Your task to perform on an android device: open app "Messages" Image 0: 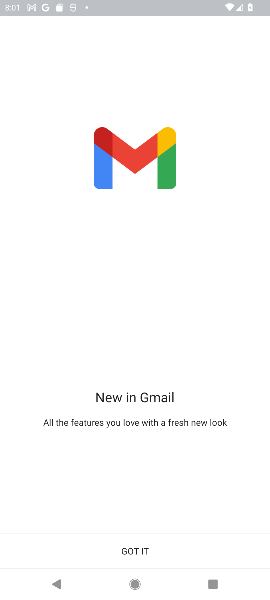
Step 0: drag from (171, 547) to (136, 156)
Your task to perform on an android device: open app "Messages" Image 1: 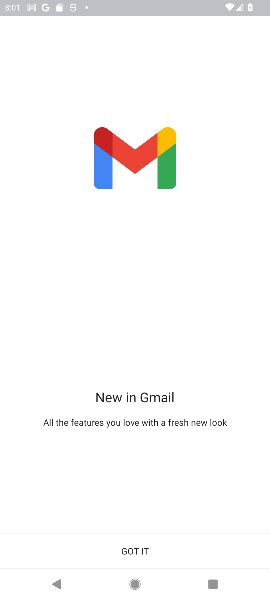
Step 1: drag from (158, 104) to (182, 2)
Your task to perform on an android device: open app "Messages" Image 2: 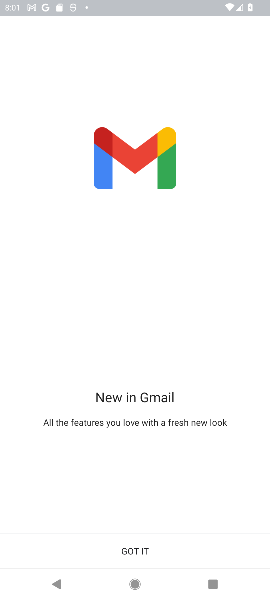
Step 2: drag from (130, 321) to (140, 38)
Your task to perform on an android device: open app "Messages" Image 3: 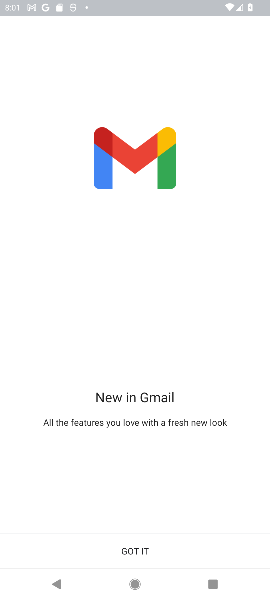
Step 3: drag from (158, 420) to (137, 80)
Your task to perform on an android device: open app "Messages" Image 4: 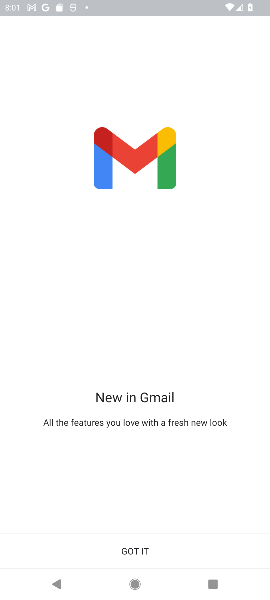
Step 4: drag from (161, 291) to (161, 29)
Your task to perform on an android device: open app "Messages" Image 5: 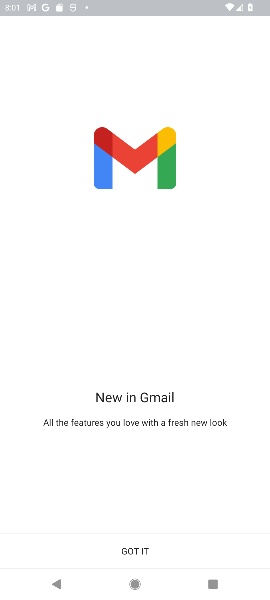
Step 5: drag from (209, 325) to (203, 21)
Your task to perform on an android device: open app "Messages" Image 6: 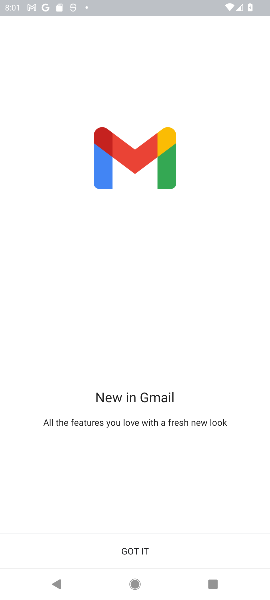
Step 6: press back button
Your task to perform on an android device: open app "Messages" Image 7: 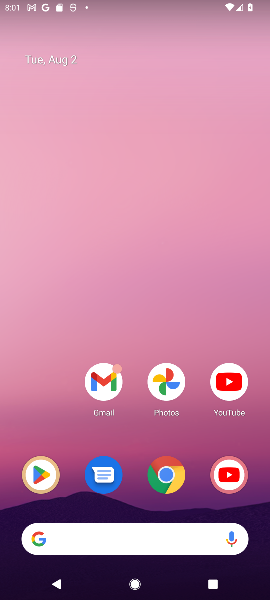
Step 7: drag from (115, 417) to (113, 129)
Your task to perform on an android device: open app "Messages" Image 8: 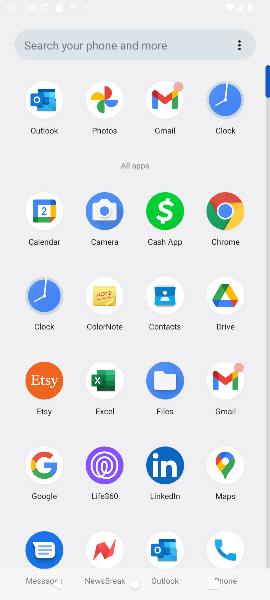
Step 8: click (121, 280)
Your task to perform on an android device: open app "Messages" Image 9: 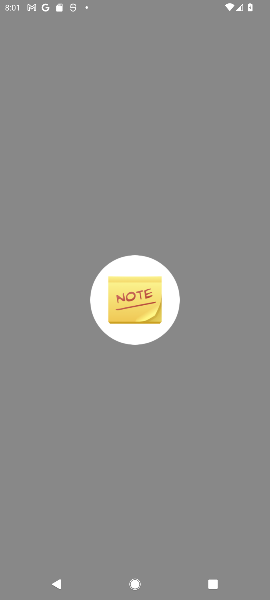
Step 9: drag from (133, 319) to (121, 181)
Your task to perform on an android device: open app "Messages" Image 10: 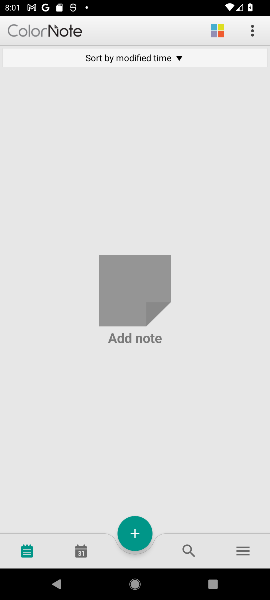
Step 10: drag from (127, 205) to (226, 409)
Your task to perform on an android device: open app "Messages" Image 11: 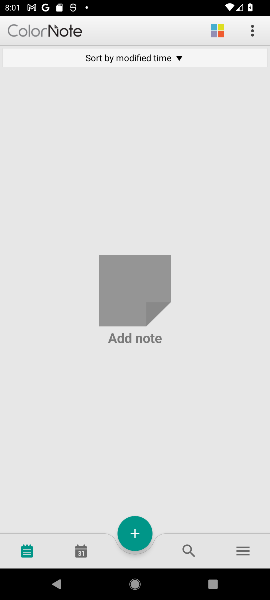
Step 11: press back button
Your task to perform on an android device: open app "Messages" Image 12: 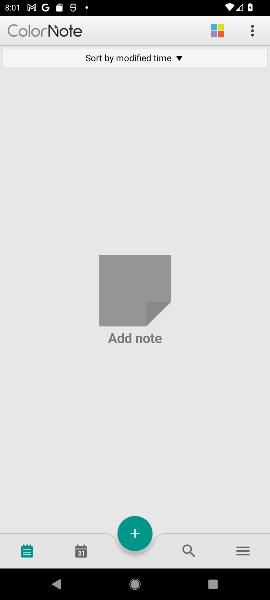
Step 12: press back button
Your task to perform on an android device: open app "Messages" Image 13: 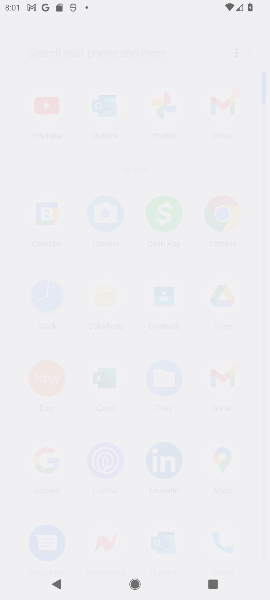
Step 13: press back button
Your task to perform on an android device: open app "Messages" Image 14: 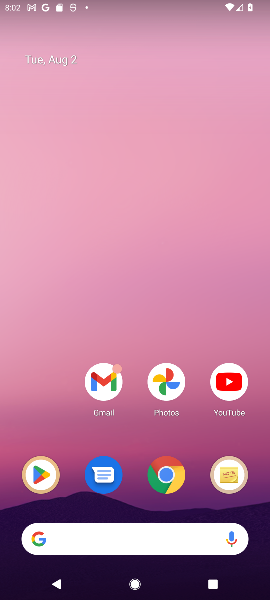
Step 14: drag from (176, 464) to (113, 223)
Your task to perform on an android device: open app "Messages" Image 15: 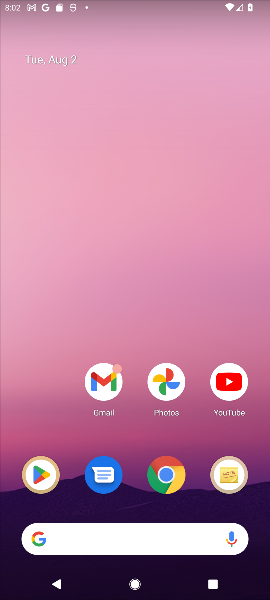
Step 15: click (114, 237)
Your task to perform on an android device: open app "Messages" Image 16: 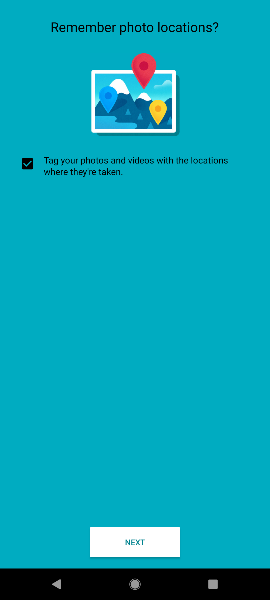
Step 16: press back button
Your task to perform on an android device: open app "Messages" Image 17: 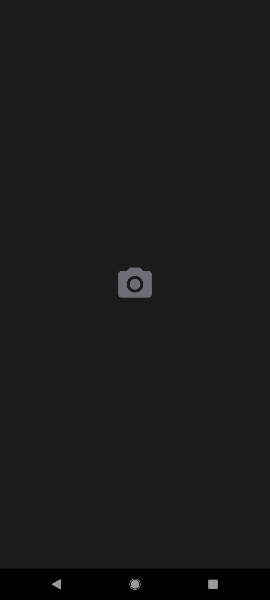
Step 17: press back button
Your task to perform on an android device: open app "Messages" Image 18: 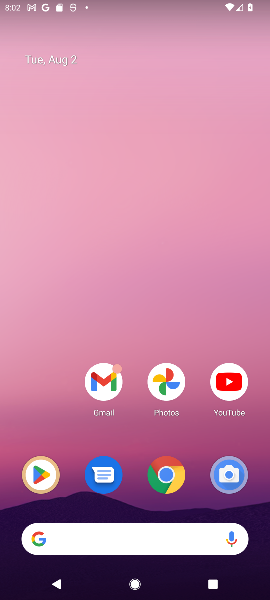
Step 18: drag from (130, 361) to (100, 150)
Your task to perform on an android device: open app "Messages" Image 19: 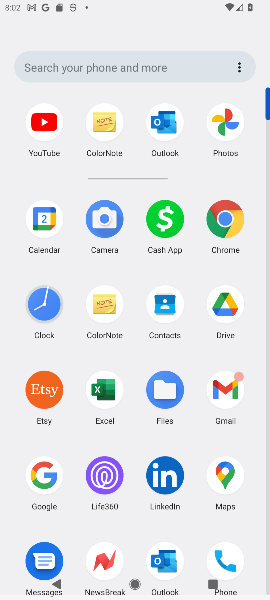
Step 19: drag from (114, 412) to (60, 162)
Your task to perform on an android device: open app "Messages" Image 20: 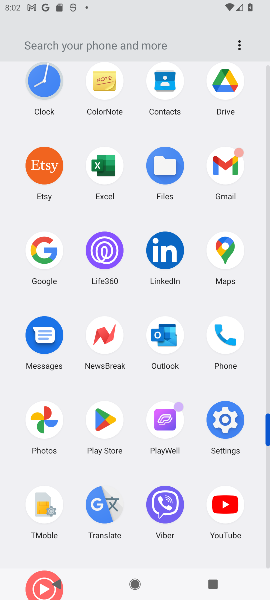
Step 20: drag from (117, 404) to (33, 88)
Your task to perform on an android device: open app "Messages" Image 21: 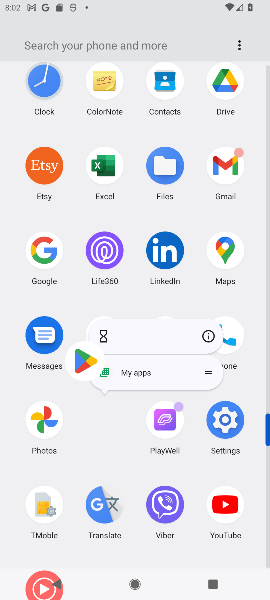
Step 21: click (93, 100)
Your task to perform on an android device: open app "Messages" Image 22: 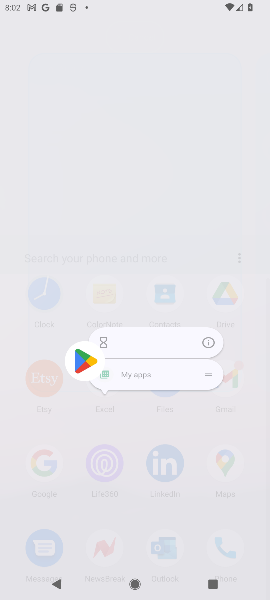
Step 22: drag from (168, 453) to (118, 274)
Your task to perform on an android device: open app "Messages" Image 23: 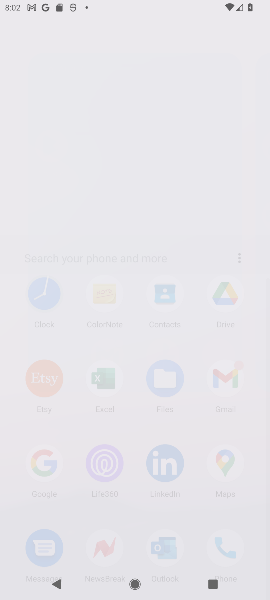
Step 23: drag from (151, 400) to (125, 244)
Your task to perform on an android device: open app "Messages" Image 24: 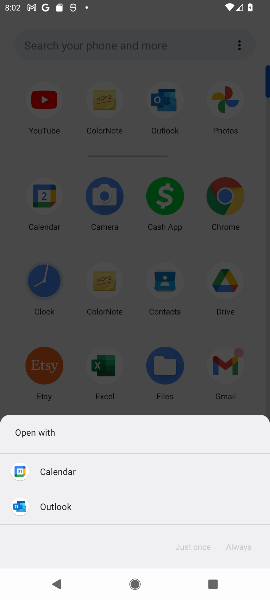
Step 24: click (138, 141)
Your task to perform on an android device: open app "Messages" Image 25: 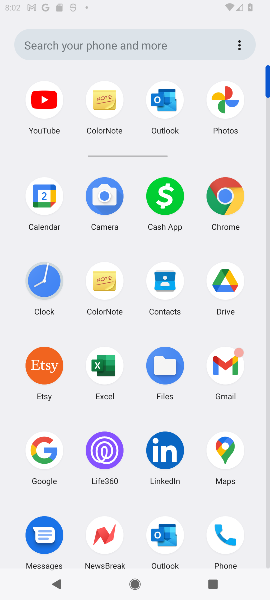
Step 25: click (126, 202)
Your task to perform on an android device: open app "Messages" Image 26: 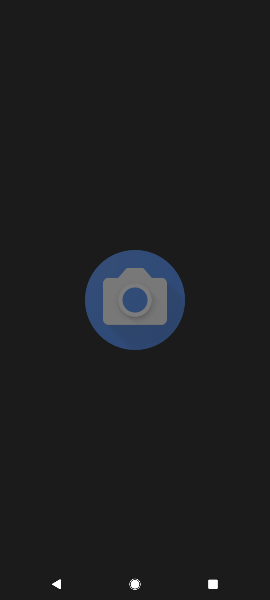
Step 26: drag from (136, 477) to (84, 158)
Your task to perform on an android device: open app "Messages" Image 27: 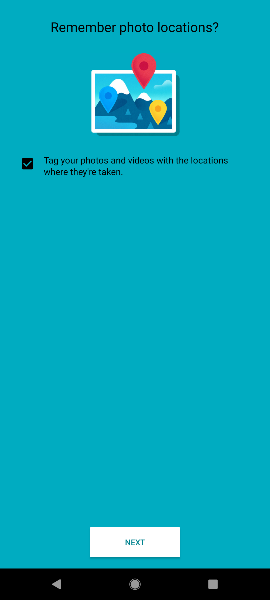
Step 27: click (134, 359)
Your task to perform on an android device: open app "Messages" Image 28: 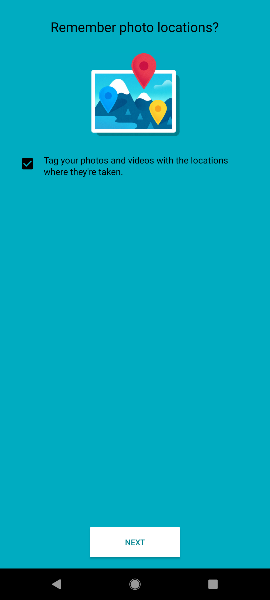
Step 28: press back button
Your task to perform on an android device: open app "Messages" Image 29: 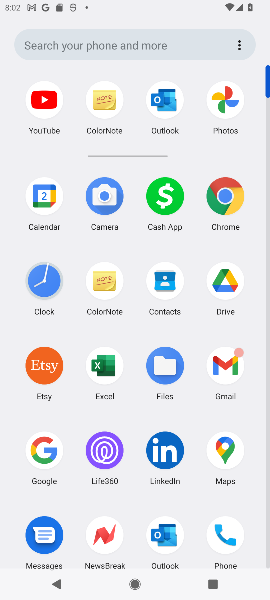
Step 29: press home button
Your task to perform on an android device: open app "Messages" Image 30: 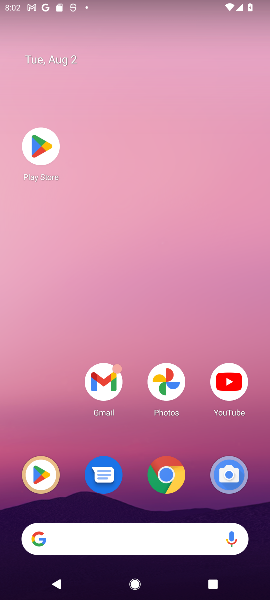
Step 30: click (131, 99)
Your task to perform on an android device: open app "Messages" Image 31: 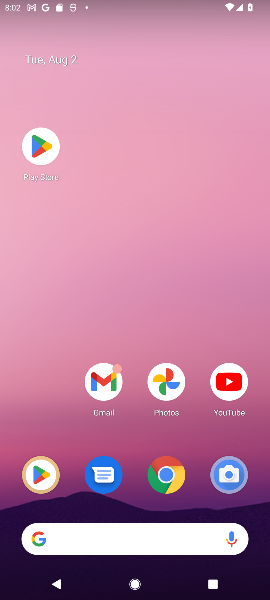
Step 31: drag from (155, 405) to (87, 28)
Your task to perform on an android device: open app "Messages" Image 32: 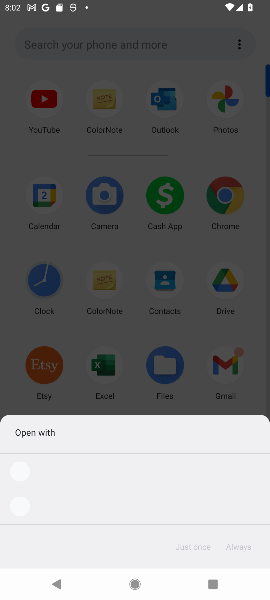
Step 32: drag from (140, 370) to (106, 122)
Your task to perform on an android device: open app "Messages" Image 33: 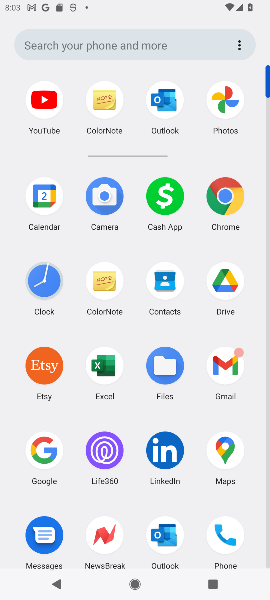
Step 33: drag from (134, 347) to (106, 133)
Your task to perform on an android device: open app "Messages" Image 34: 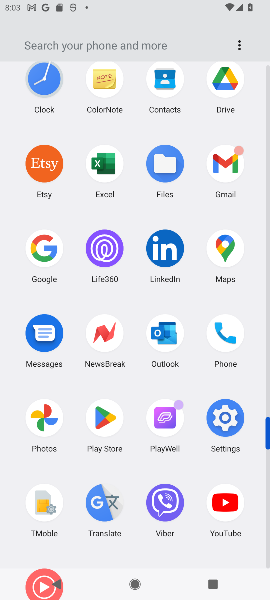
Step 34: drag from (137, 360) to (131, 119)
Your task to perform on an android device: open app "Messages" Image 35: 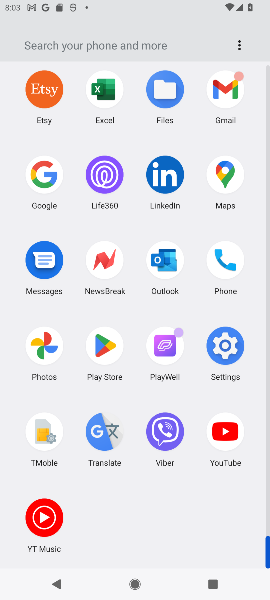
Step 35: drag from (138, 383) to (129, 111)
Your task to perform on an android device: open app "Messages" Image 36: 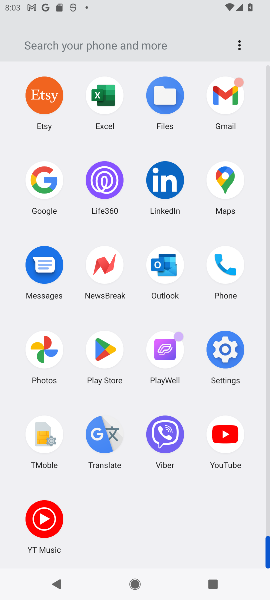
Step 36: click (99, 363)
Your task to perform on an android device: open app "Messages" Image 37: 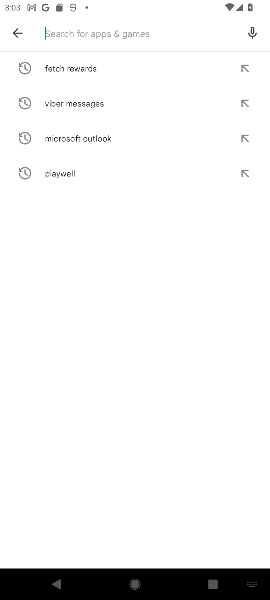
Step 37: click (96, 340)
Your task to perform on an android device: open app "Messages" Image 38: 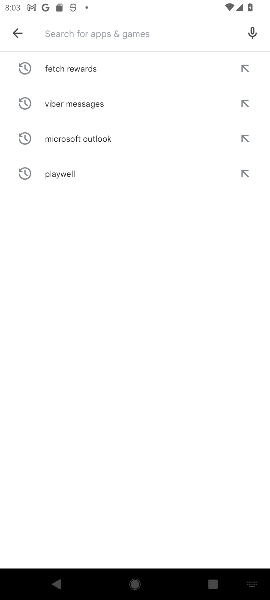
Step 38: click (52, 33)
Your task to perform on an android device: open app "Messages" Image 39: 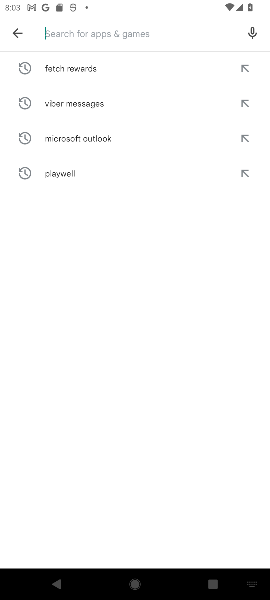
Step 39: type "messages"
Your task to perform on an android device: open app "Messages" Image 40: 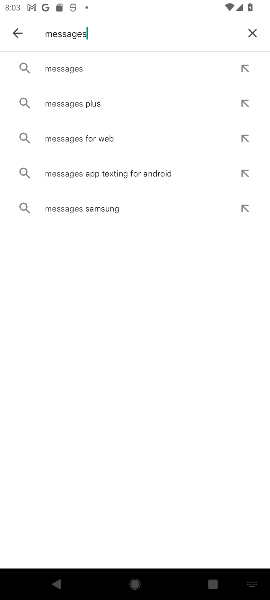
Step 40: click (72, 70)
Your task to perform on an android device: open app "Messages" Image 41: 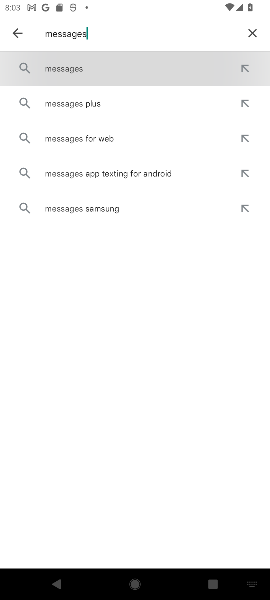
Step 41: click (71, 71)
Your task to perform on an android device: open app "Messages" Image 42: 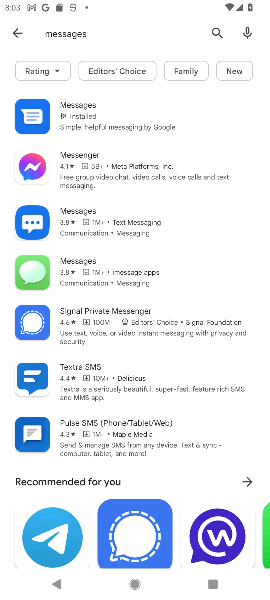
Step 42: task complete